Your task to perform on an android device: set the timer Image 0: 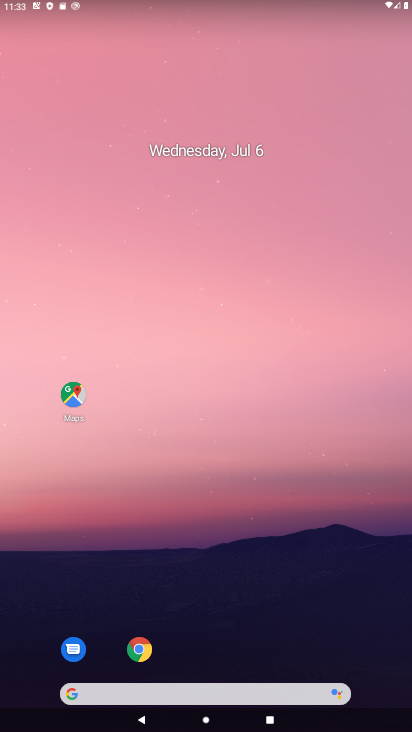
Step 0: drag from (255, 308) to (410, 193)
Your task to perform on an android device: set the timer Image 1: 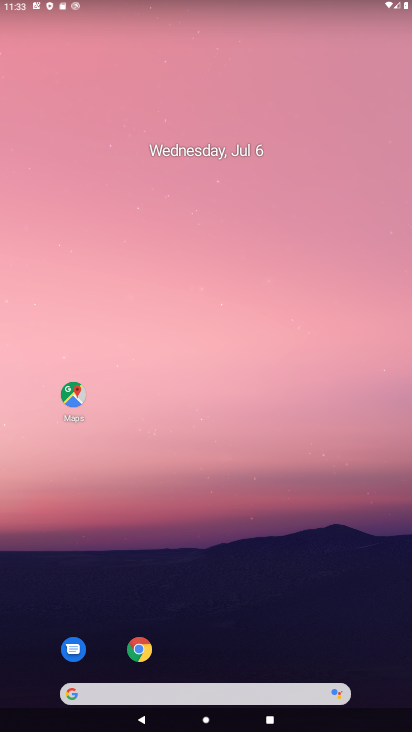
Step 1: drag from (35, 689) to (237, 126)
Your task to perform on an android device: set the timer Image 2: 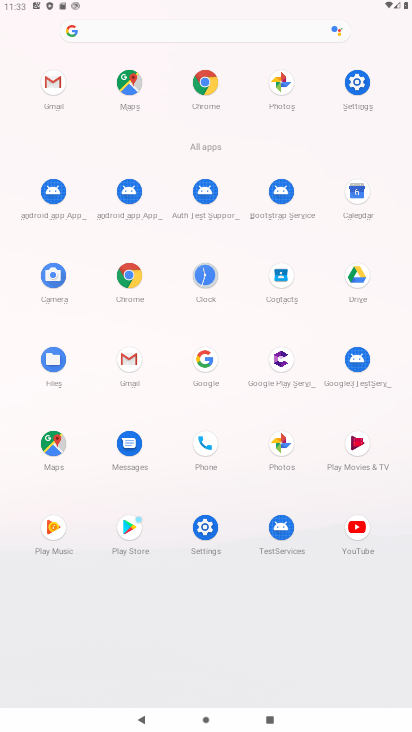
Step 2: click (199, 276)
Your task to perform on an android device: set the timer Image 3: 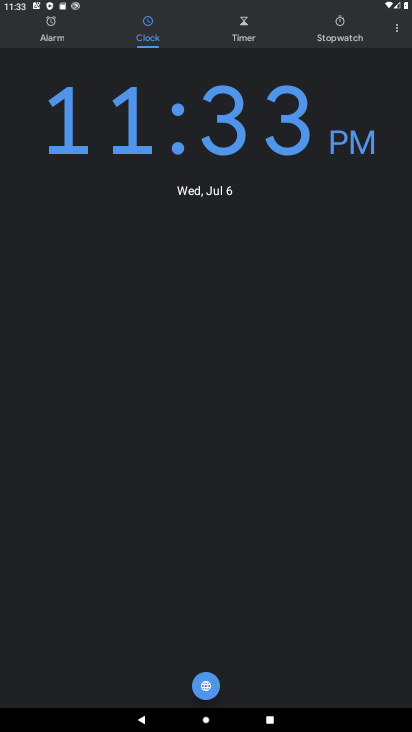
Step 3: click (242, 28)
Your task to perform on an android device: set the timer Image 4: 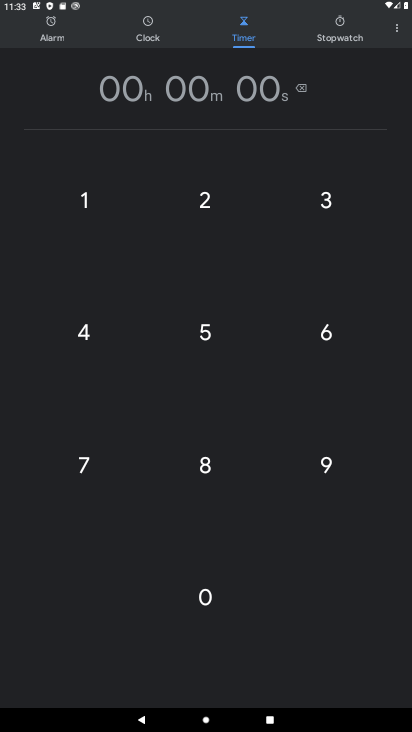
Step 4: click (190, 331)
Your task to perform on an android device: set the timer Image 5: 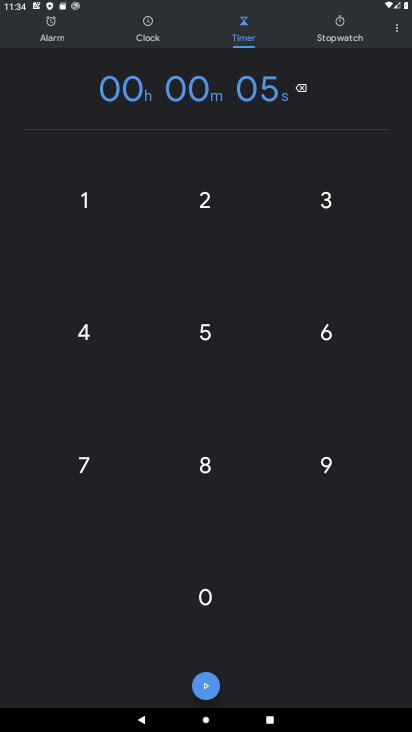
Step 5: click (213, 338)
Your task to perform on an android device: set the timer Image 6: 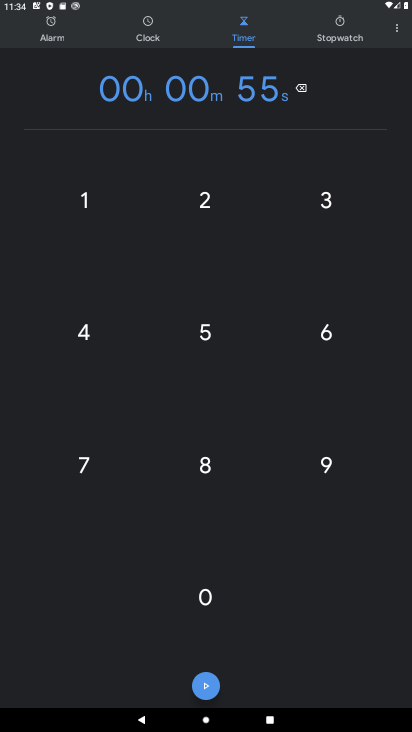
Step 6: click (75, 336)
Your task to perform on an android device: set the timer Image 7: 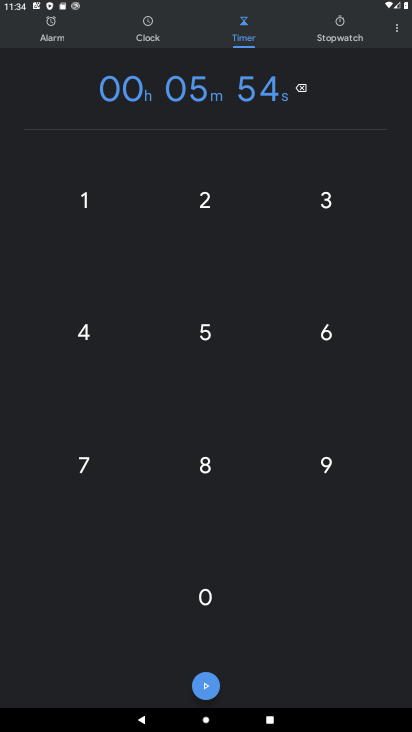
Step 7: task complete